Your task to perform on an android device: toggle javascript in the chrome app Image 0: 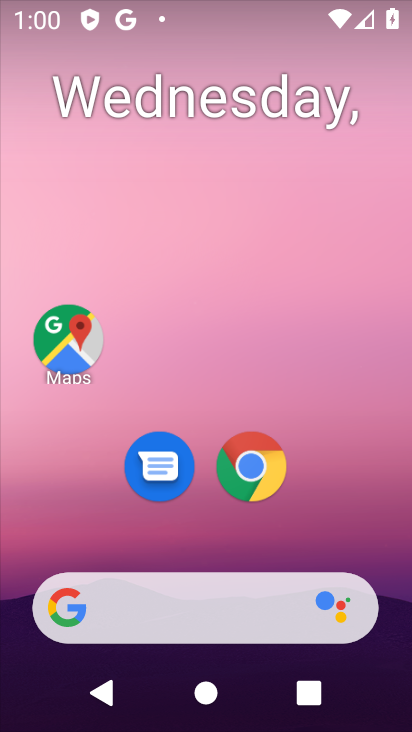
Step 0: click (255, 451)
Your task to perform on an android device: toggle javascript in the chrome app Image 1: 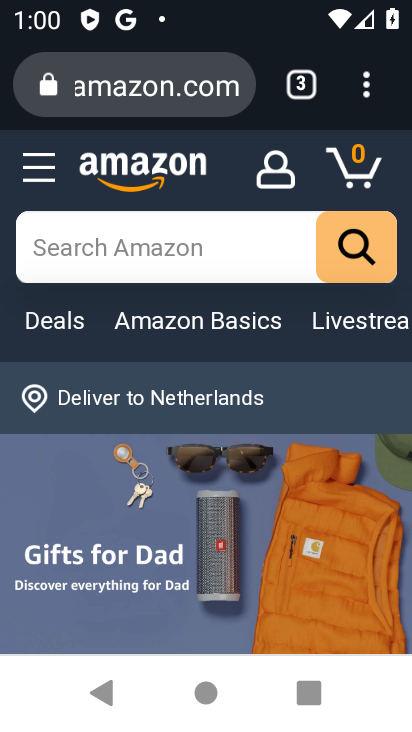
Step 1: click (369, 88)
Your task to perform on an android device: toggle javascript in the chrome app Image 2: 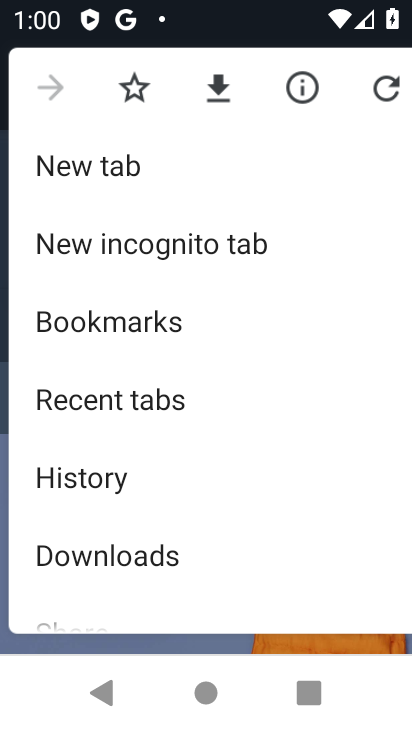
Step 2: drag from (220, 521) to (179, 216)
Your task to perform on an android device: toggle javascript in the chrome app Image 3: 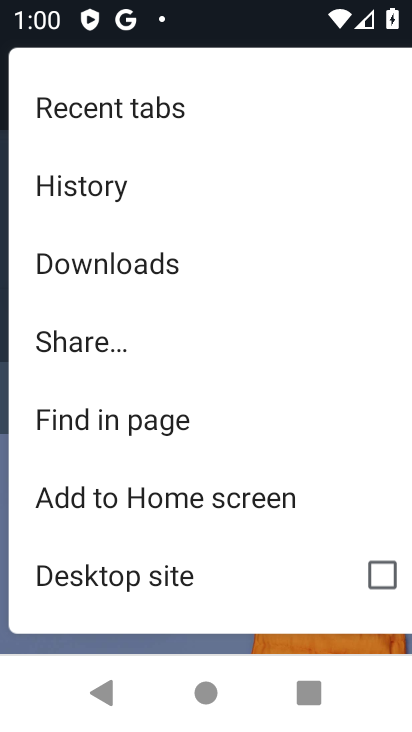
Step 3: drag from (196, 572) to (163, 243)
Your task to perform on an android device: toggle javascript in the chrome app Image 4: 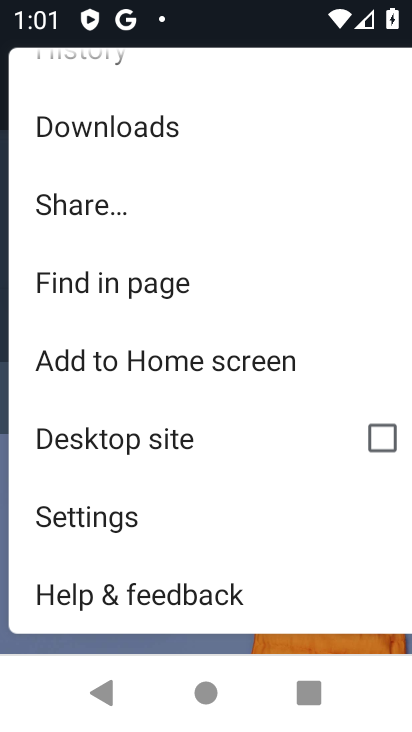
Step 4: click (107, 516)
Your task to perform on an android device: toggle javascript in the chrome app Image 5: 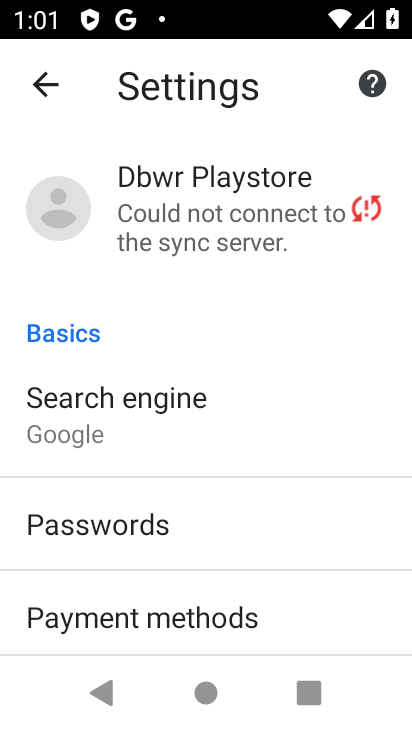
Step 5: drag from (203, 580) to (211, 411)
Your task to perform on an android device: toggle javascript in the chrome app Image 6: 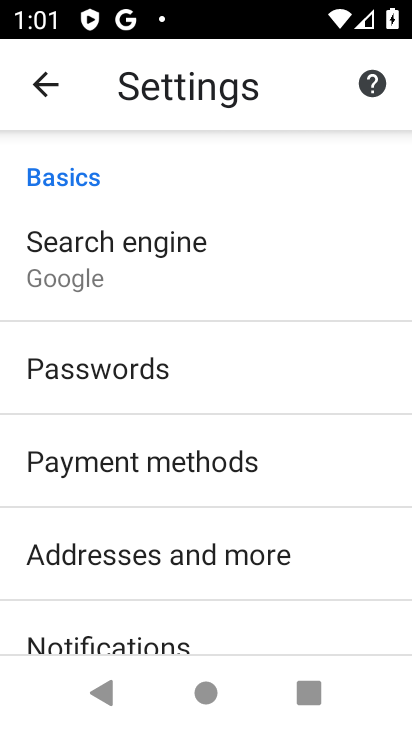
Step 6: drag from (236, 574) to (223, 285)
Your task to perform on an android device: toggle javascript in the chrome app Image 7: 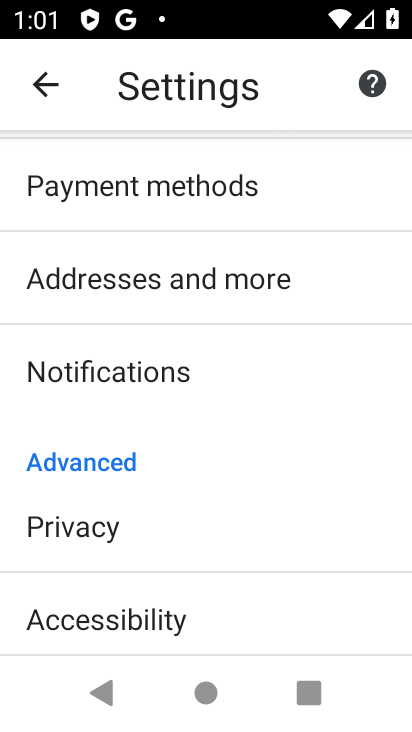
Step 7: drag from (227, 498) to (206, 313)
Your task to perform on an android device: toggle javascript in the chrome app Image 8: 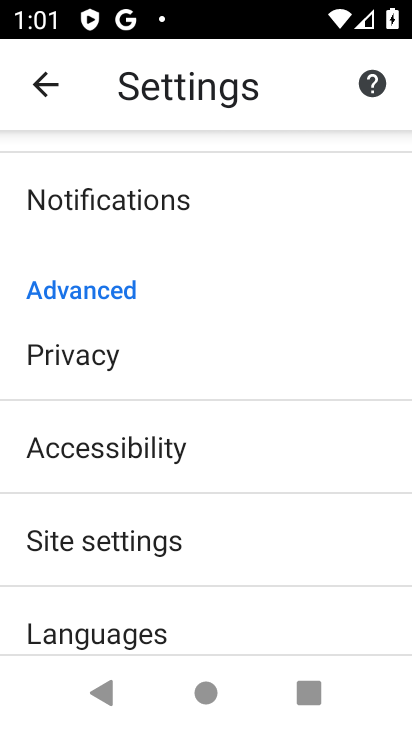
Step 8: click (142, 546)
Your task to perform on an android device: toggle javascript in the chrome app Image 9: 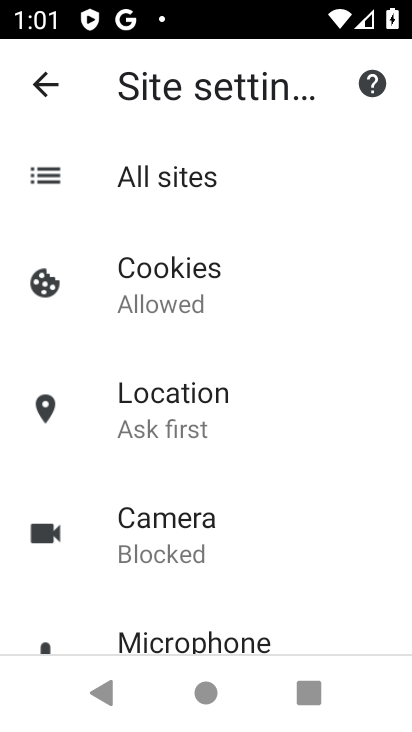
Step 9: drag from (254, 600) to (254, 283)
Your task to perform on an android device: toggle javascript in the chrome app Image 10: 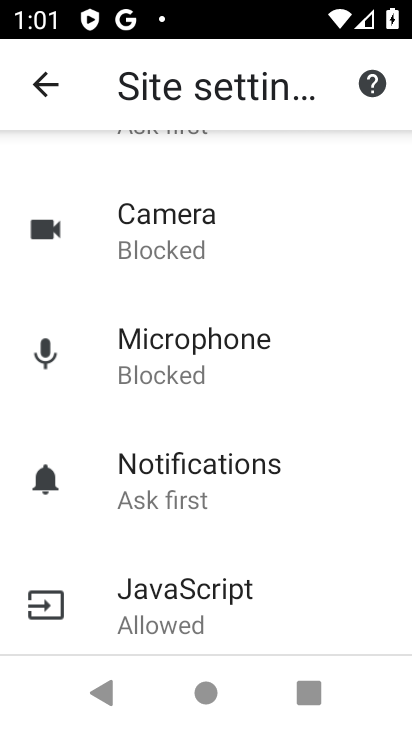
Step 10: click (223, 596)
Your task to perform on an android device: toggle javascript in the chrome app Image 11: 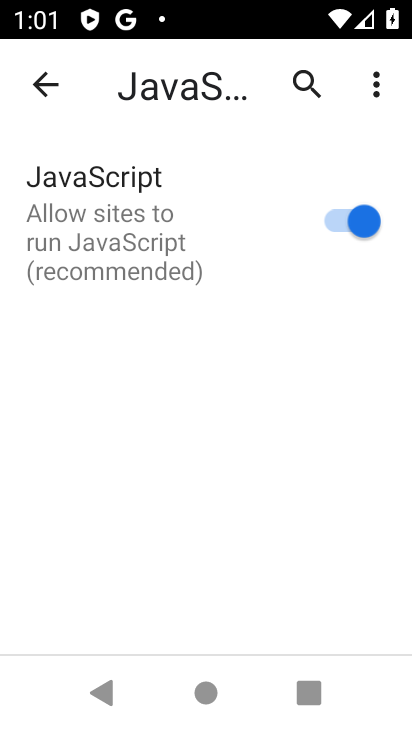
Step 11: click (350, 212)
Your task to perform on an android device: toggle javascript in the chrome app Image 12: 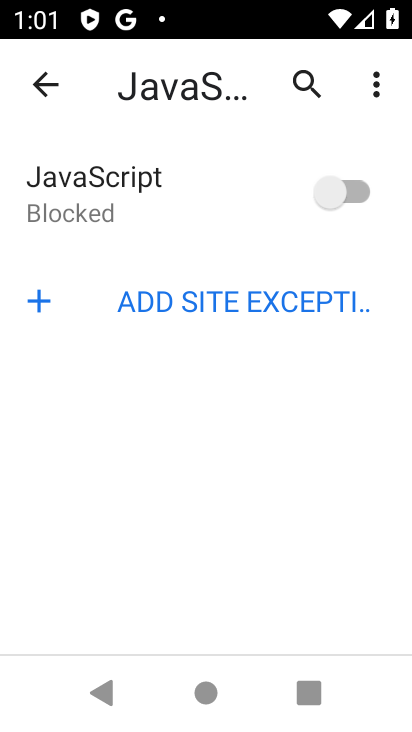
Step 12: task complete